Your task to perform on an android device: Go to Maps Image 0: 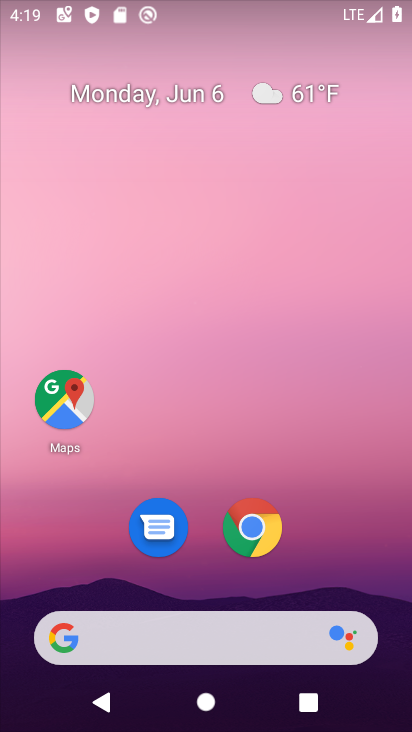
Step 0: click (46, 401)
Your task to perform on an android device: Go to Maps Image 1: 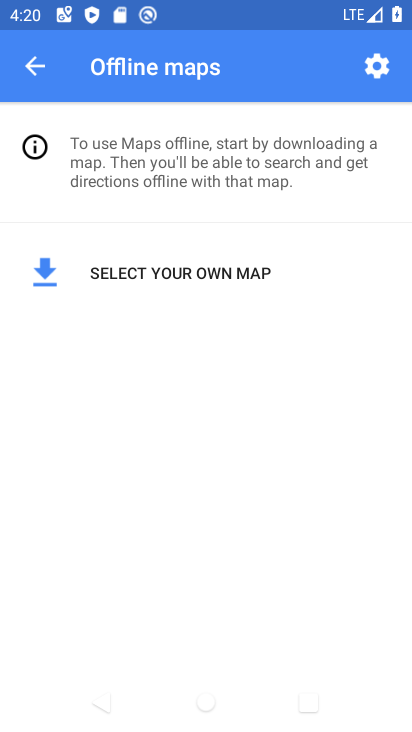
Step 1: click (21, 66)
Your task to perform on an android device: Go to Maps Image 2: 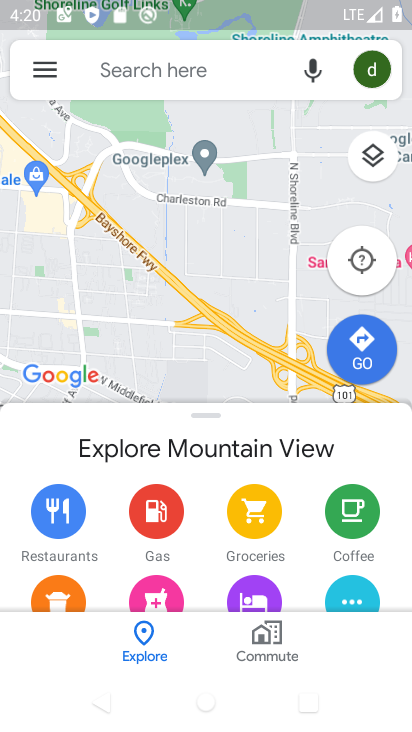
Step 2: task complete